Your task to perform on an android device: Turn on the flashlight Image 0: 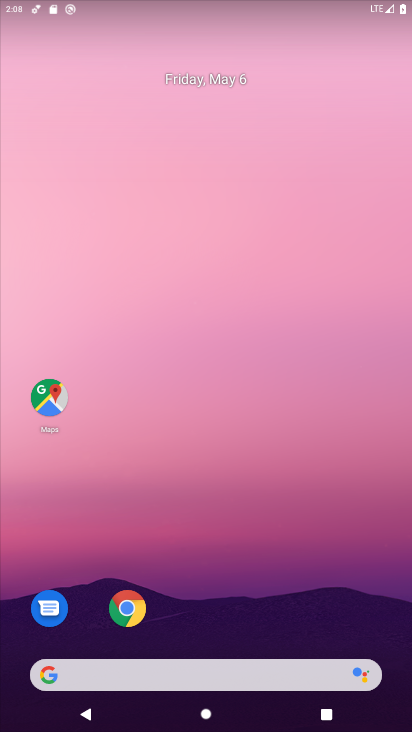
Step 0: drag from (213, 627) to (294, 200)
Your task to perform on an android device: Turn on the flashlight Image 1: 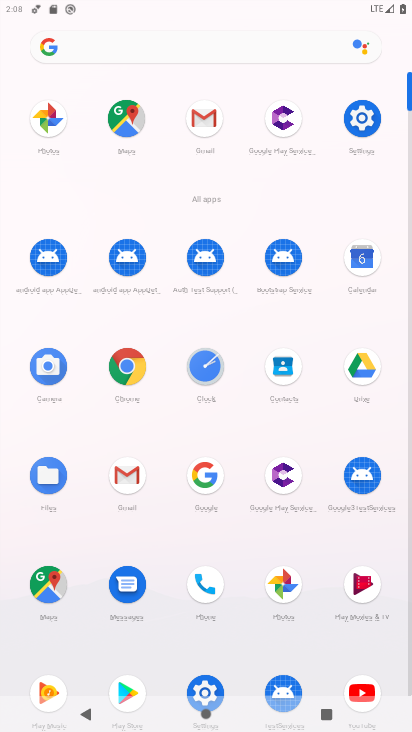
Step 1: click (357, 135)
Your task to perform on an android device: Turn on the flashlight Image 2: 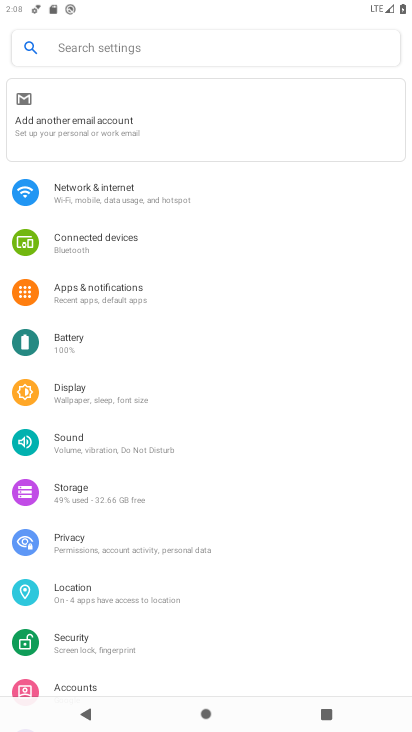
Step 2: click (234, 45)
Your task to perform on an android device: Turn on the flashlight Image 3: 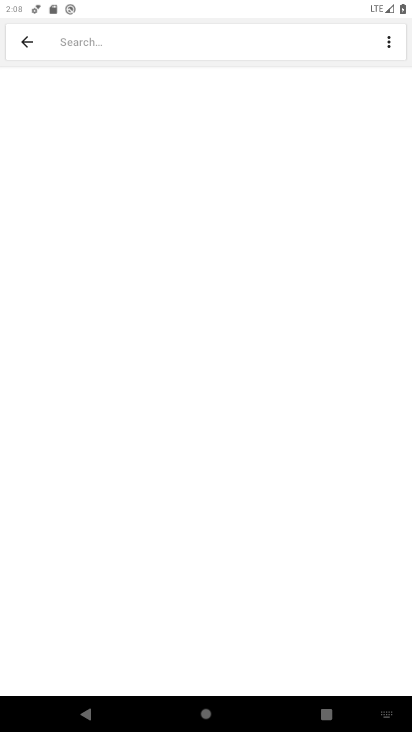
Step 3: type "flashlight"
Your task to perform on an android device: Turn on the flashlight Image 4: 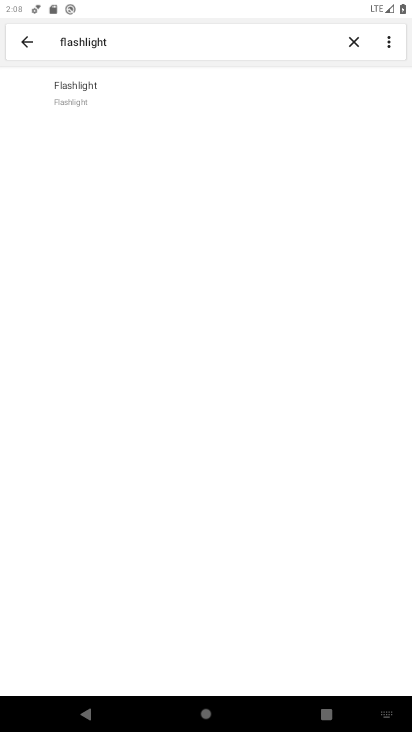
Step 4: click (100, 94)
Your task to perform on an android device: Turn on the flashlight Image 5: 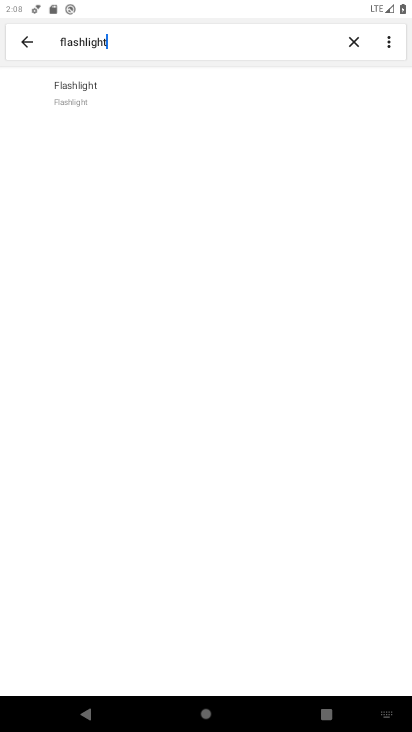
Step 5: click (99, 95)
Your task to perform on an android device: Turn on the flashlight Image 6: 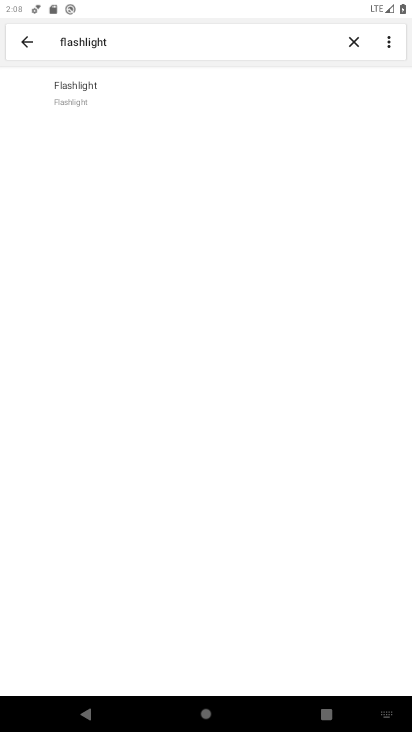
Step 6: task complete